Your task to perform on an android device: Find coffee shops on Maps Image 0: 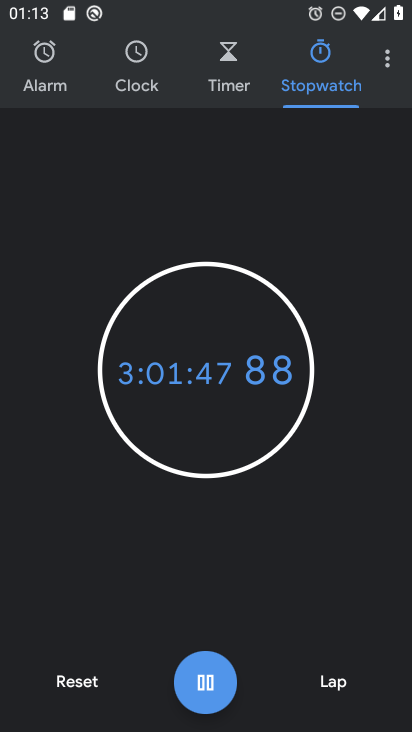
Step 0: task complete